Your task to perform on an android device: toggle pop-ups in chrome Image 0: 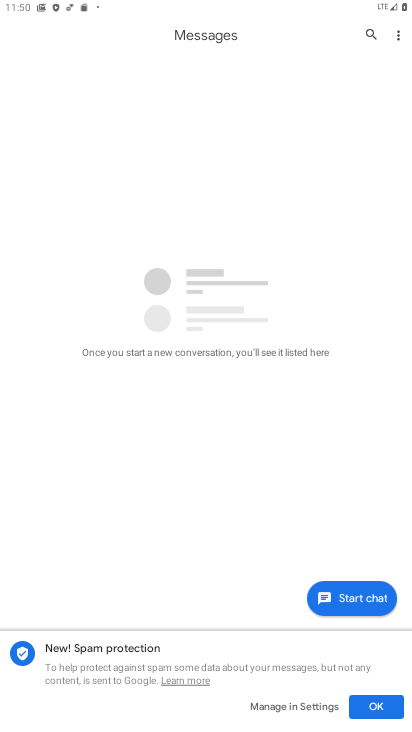
Step 0: press back button
Your task to perform on an android device: toggle pop-ups in chrome Image 1: 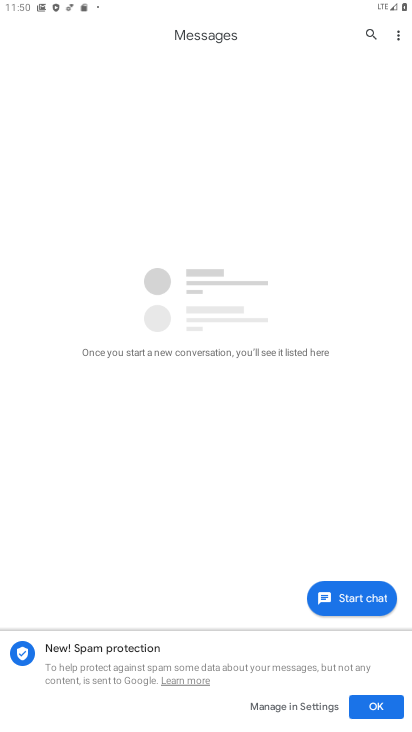
Step 1: press back button
Your task to perform on an android device: toggle pop-ups in chrome Image 2: 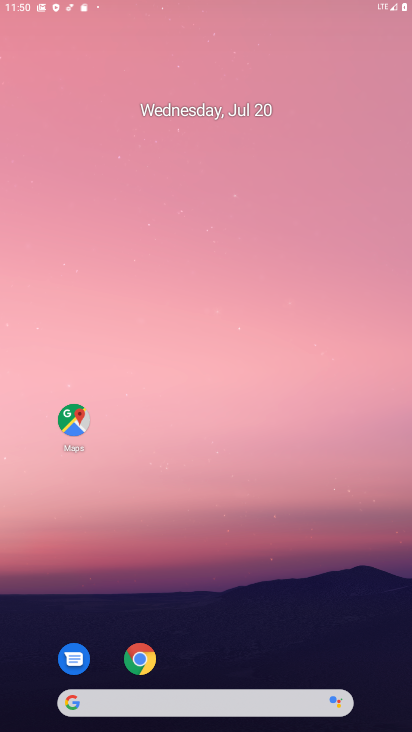
Step 2: press back button
Your task to perform on an android device: toggle pop-ups in chrome Image 3: 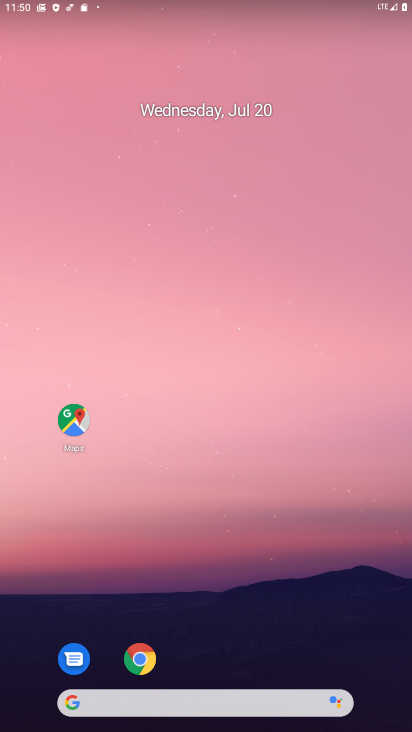
Step 3: drag from (172, 314) to (206, 274)
Your task to perform on an android device: toggle pop-ups in chrome Image 4: 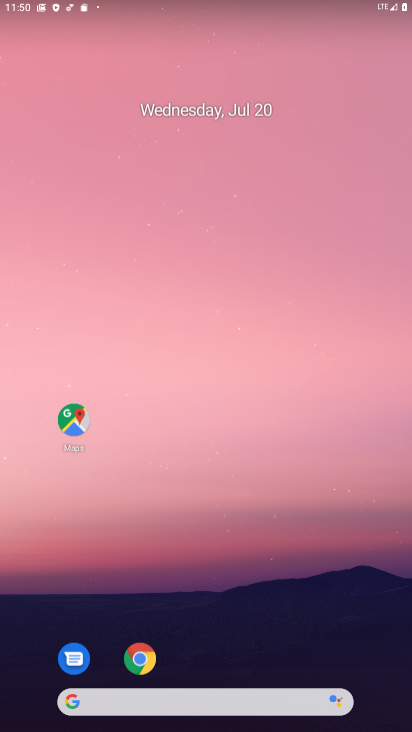
Step 4: drag from (227, 481) to (185, 163)
Your task to perform on an android device: toggle pop-ups in chrome Image 5: 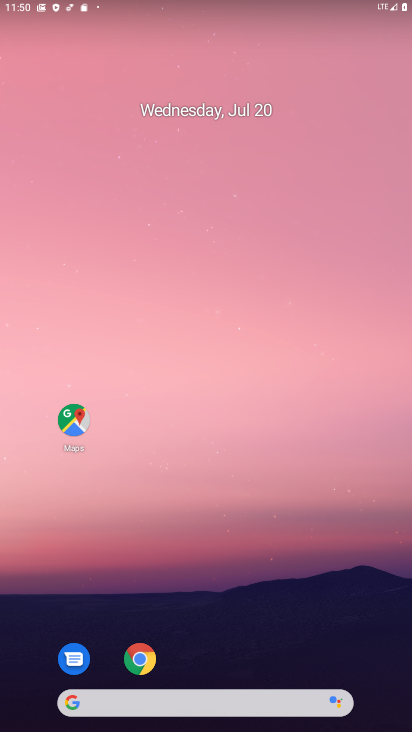
Step 5: drag from (259, 585) to (194, 172)
Your task to perform on an android device: toggle pop-ups in chrome Image 6: 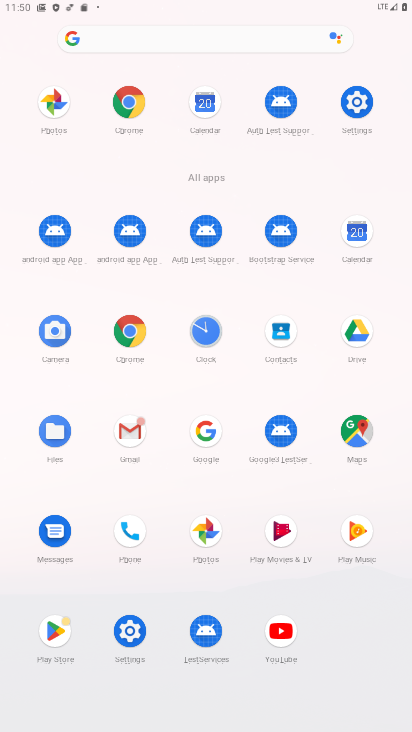
Step 6: click (124, 96)
Your task to perform on an android device: toggle pop-ups in chrome Image 7: 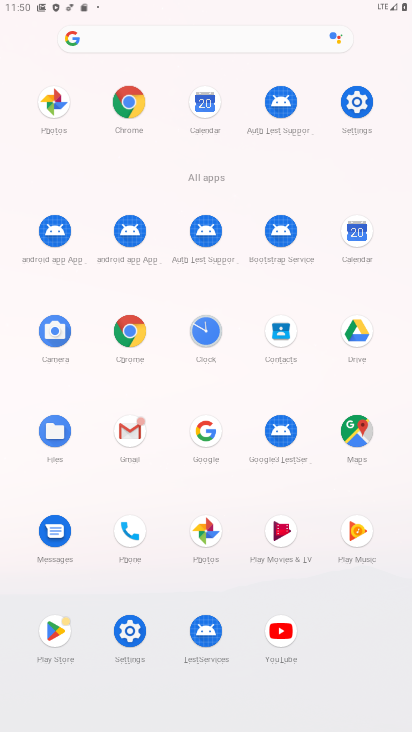
Step 7: click (124, 96)
Your task to perform on an android device: toggle pop-ups in chrome Image 8: 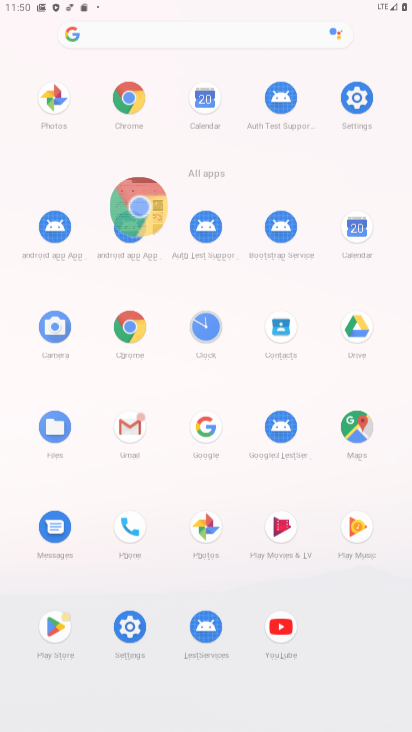
Step 8: click (128, 102)
Your task to perform on an android device: toggle pop-ups in chrome Image 9: 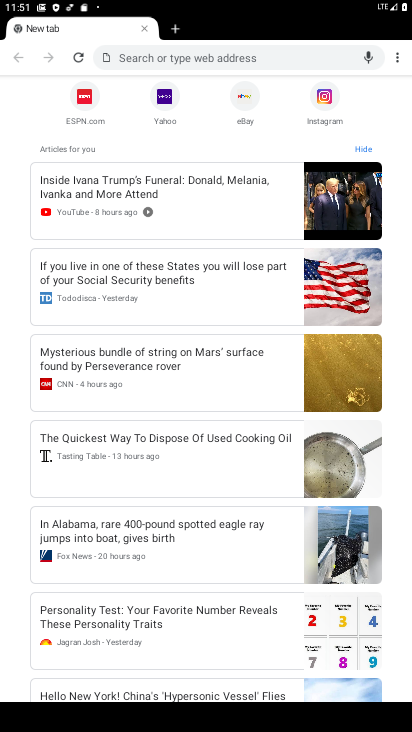
Step 9: drag from (402, 55) to (291, 264)
Your task to perform on an android device: toggle pop-ups in chrome Image 10: 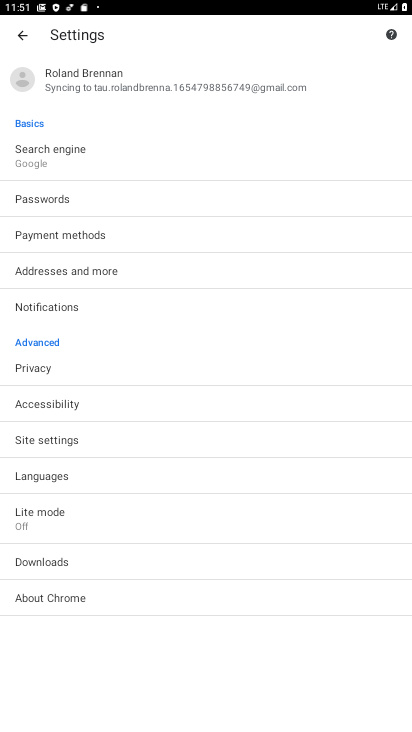
Step 10: click (22, 434)
Your task to perform on an android device: toggle pop-ups in chrome Image 11: 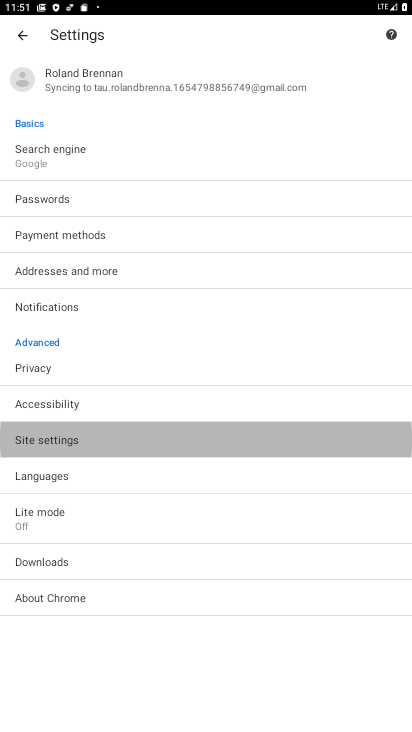
Step 11: click (42, 432)
Your task to perform on an android device: toggle pop-ups in chrome Image 12: 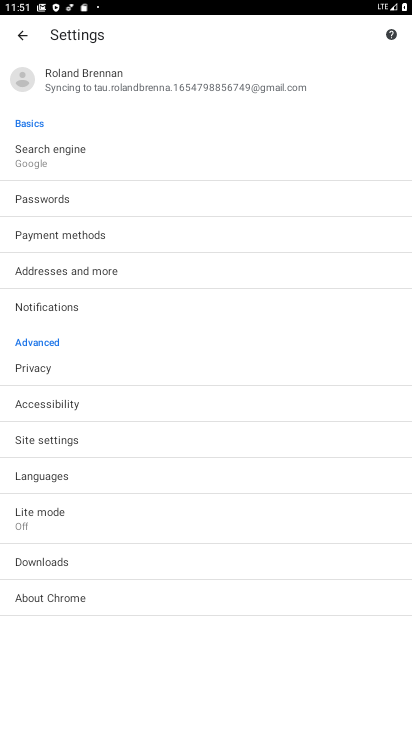
Step 12: click (43, 432)
Your task to perform on an android device: toggle pop-ups in chrome Image 13: 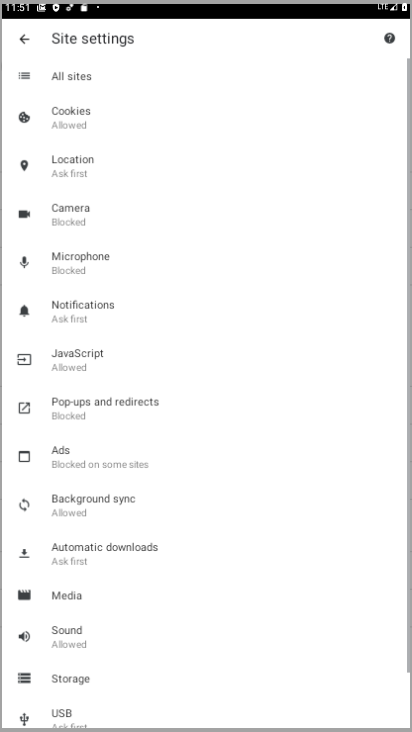
Step 13: click (43, 432)
Your task to perform on an android device: toggle pop-ups in chrome Image 14: 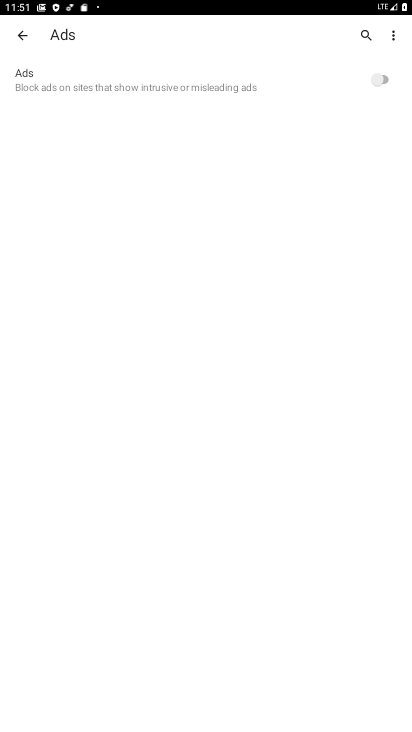
Step 14: click (11, 25)
Your task to perform on an android device: toggle pop-ups in chrome Image 15: 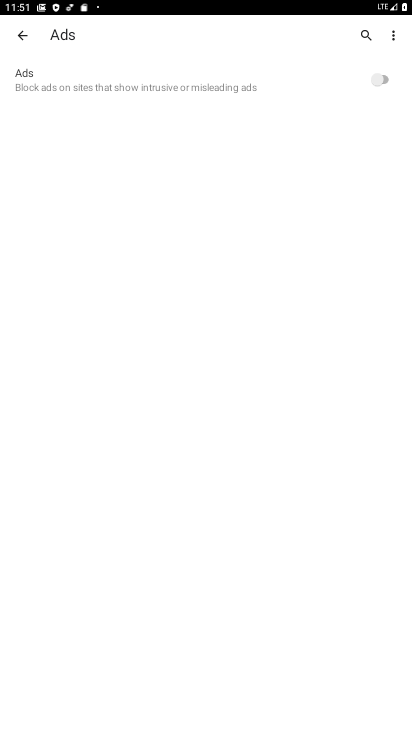
Step 15: click (17, 30)
Your task to perform on an android device: toggle pop-ups in chrome Image 16: 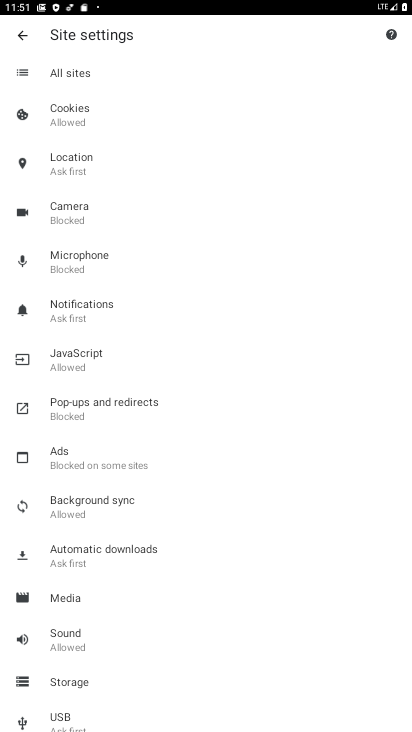
Step 16: click (70, 395)
Your task to perform on an android device: toggle pop-ups in chrome Image 17: 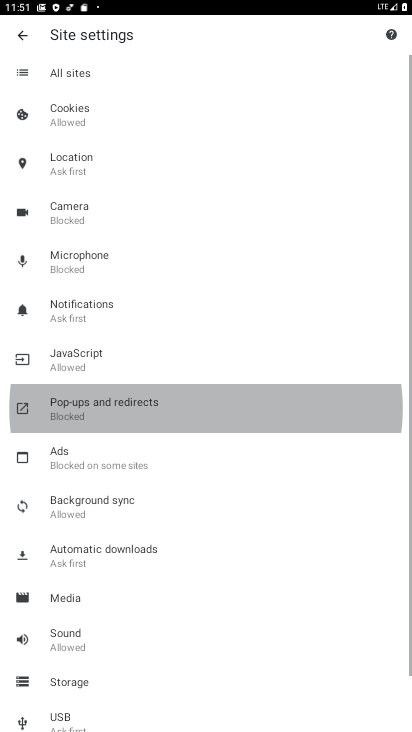
Step 17: click (83, 404)
Your task to perform on an android device: toggle pop-ups in chrome Image 18: 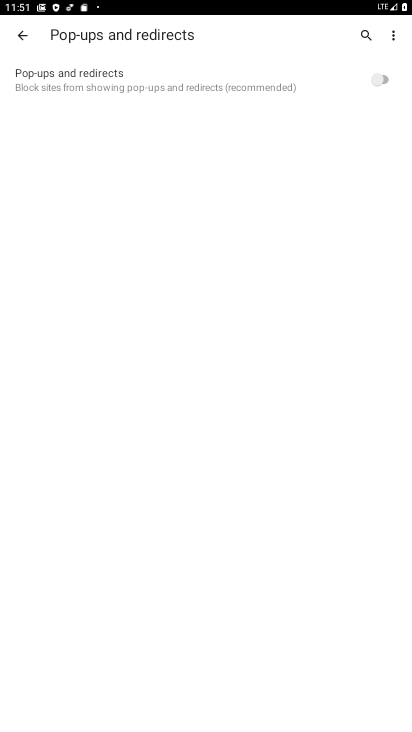
Step 18: click (367, 76)
Your task to perform on an android device: toggle pop-ups in chrome Image 19: 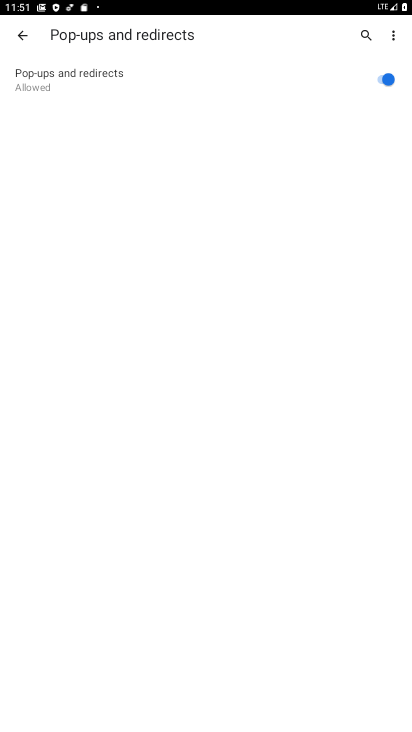
Step 19: task complete